Your task to perform on an android device: Go to privacy settings Image 0: 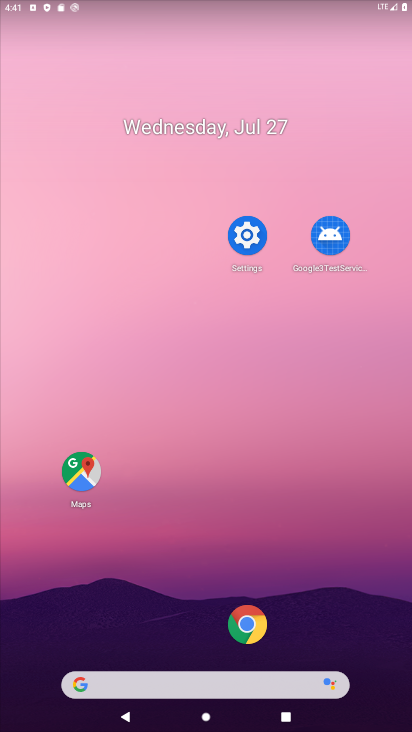
Step 0: click (249, 232)
Your task to perform on an android device: Go to privacy settings Image 1: 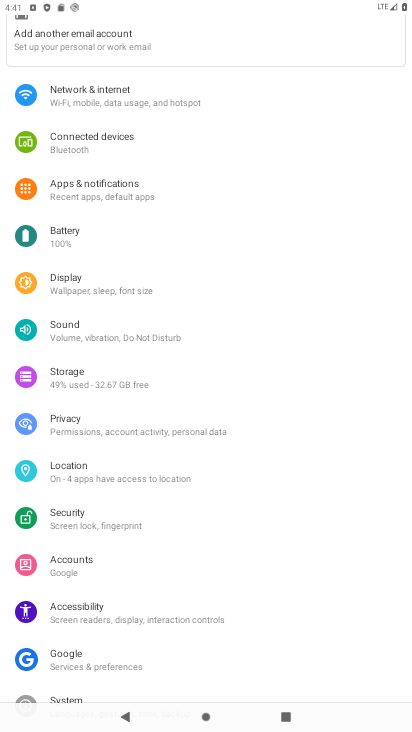
Step 1: click (41, 421)
Your task to perform on an android device: Go to privacy settings Image 2: 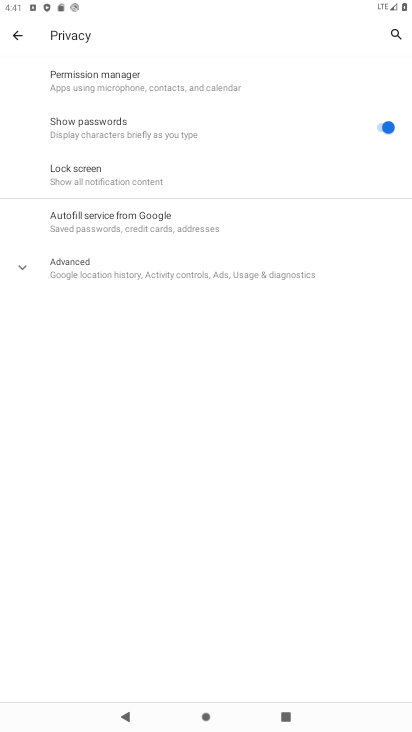
Step 2: task complete